Your task to perform on an android device: Go to network settings Image 0: 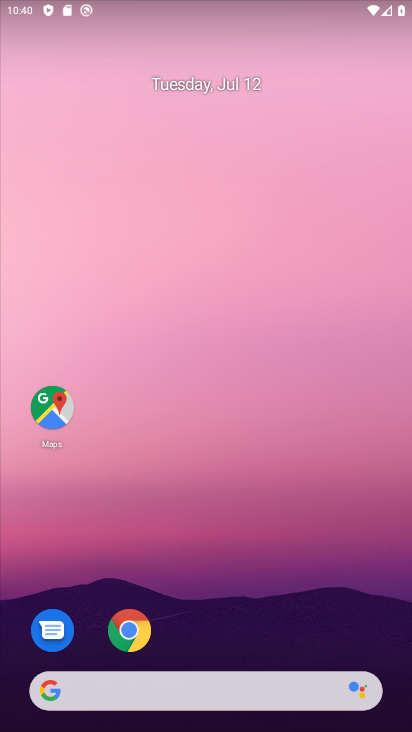
Step 0: drag from (383, 661) to (245, 69)
Your task to perform on an android device: Go to network settings Image 1: 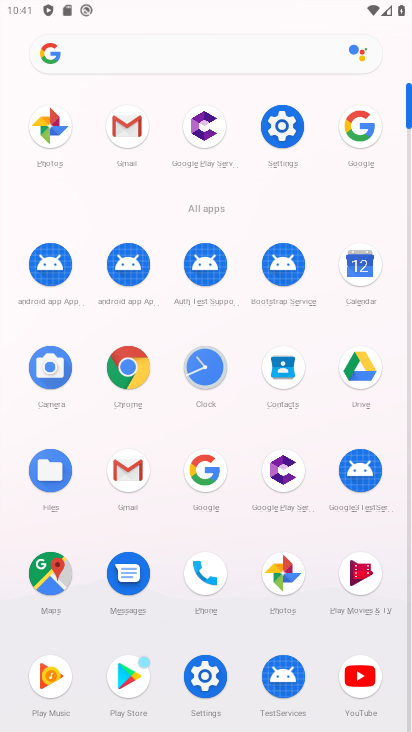
Step 1: click (277, 136)
Your task to perform on an android device: Go to network settings Image 2: 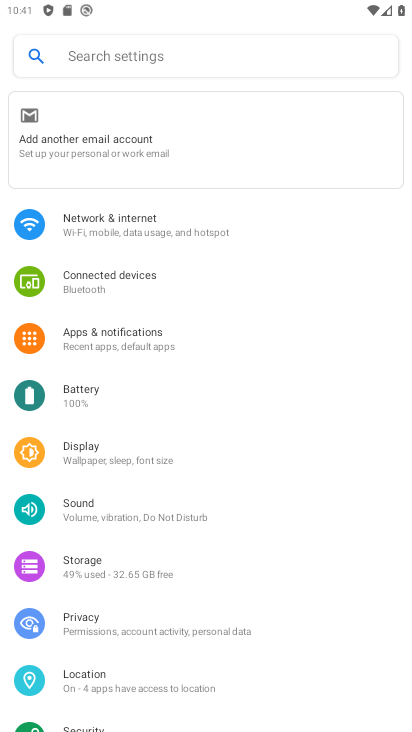
Step 2: click (147, 216)
Your task to perform on an android device: Go to network settings Image 3: 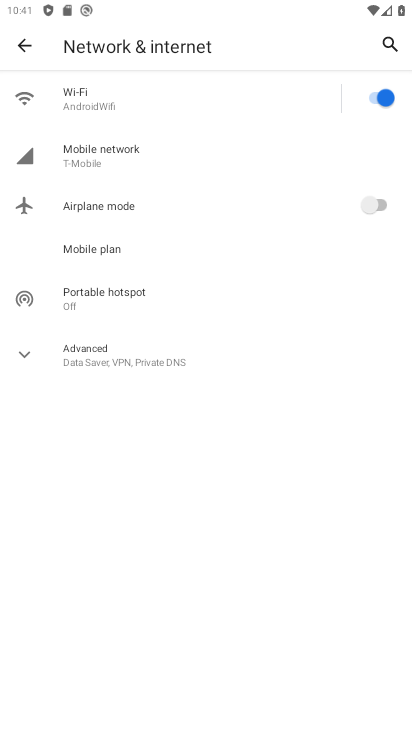
Step 3: task complete